Your task to perform on an android device: Show me popular games on the Play Store Image 0: 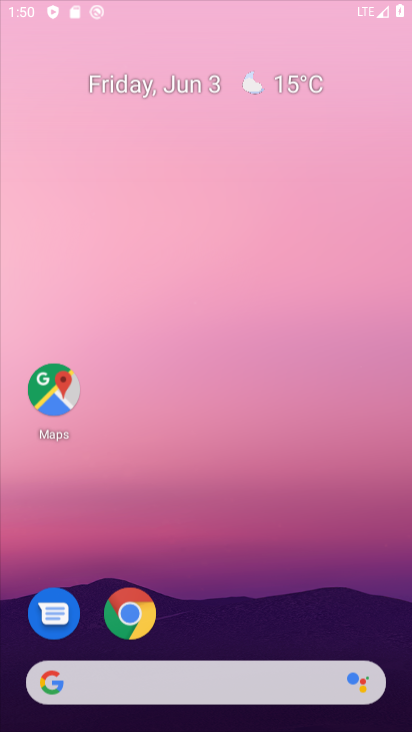
Step 0: click (214, 371)
Your task to perform on an android device: Show me popular games on the Play Store Image 1: 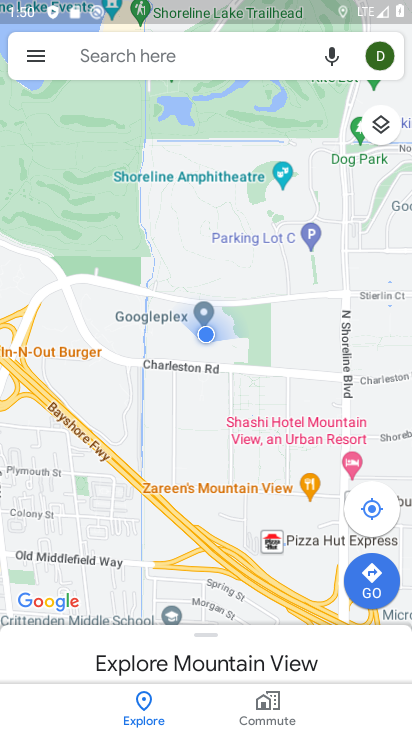
Step 1: press home button
Your task to perform on an android device: Show me popular games on the Play Store Image 2: 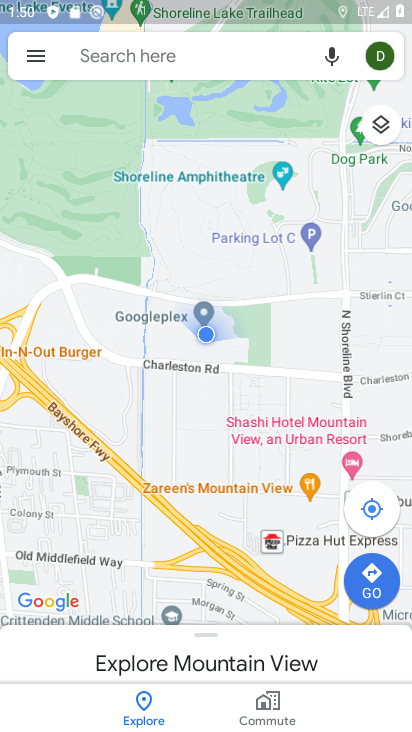
Step 2: drag from (178, 591) to (253, 67)
Your task to perform on an android device: Show me popular games on the Play Store Image 3: 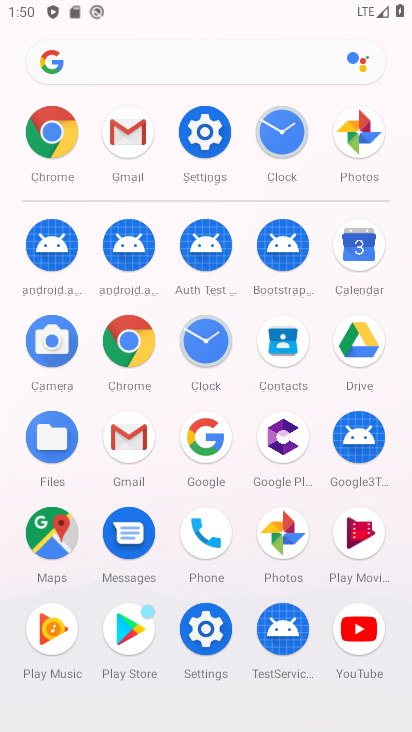
Step 3: click (130, 617)
Your task to perform on an android device: Show me popular games on the Play Store Image 4: 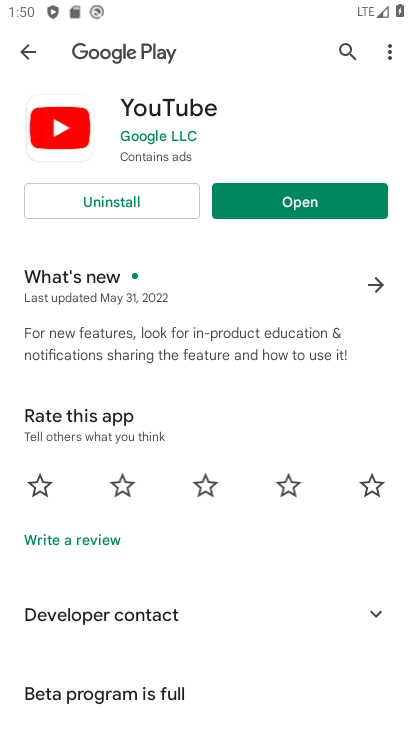
Step 4: press back button
Your task to perform on an android device: Show me popular games on the Play Store Image 5: 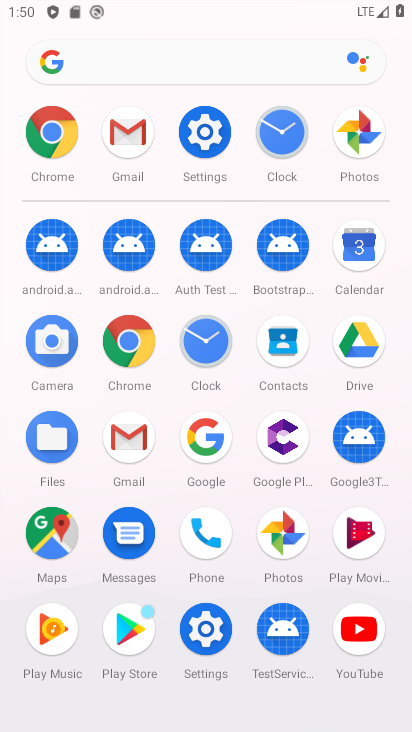
Step 5: click (143, 636)
Your task to perform on an android device: Show me popular games on the Play Store Image 6: 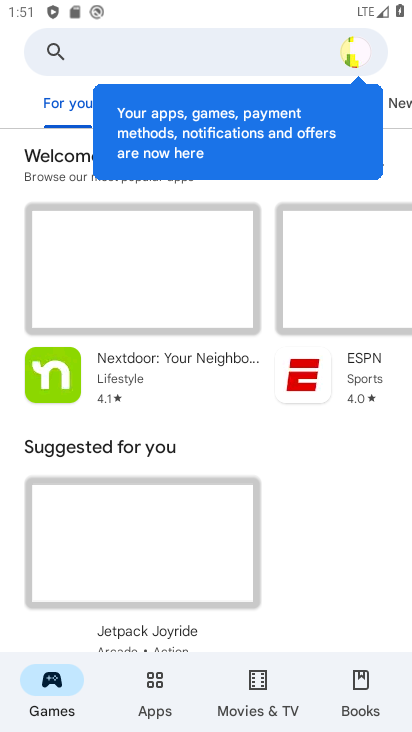
Step 6: click (149, 681)
Your task to perform on an android device: Show me popular games on the Play Store Image 7: 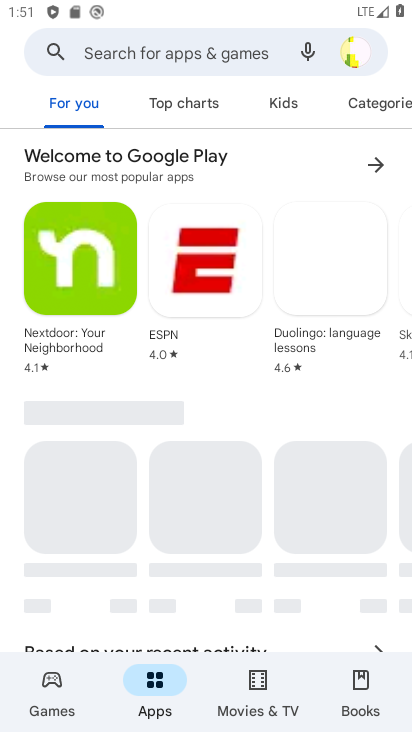
Step 7: drag from (173, 465) to (205, 254)
Your task to perform on an android device: Show me popular games on the Play Store Image 8: 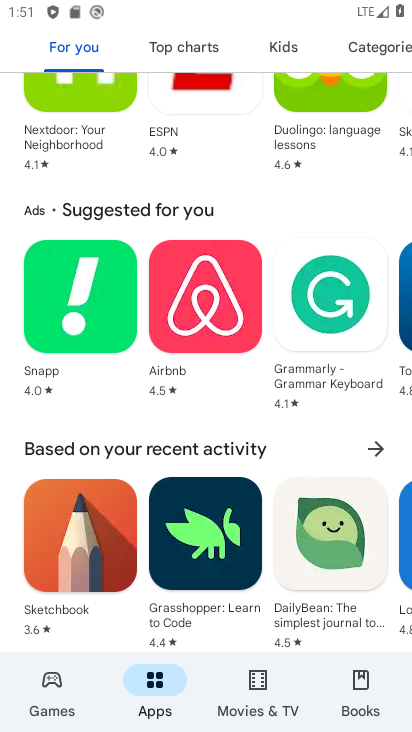
Step 8: drag from (211, 247) to (350, 731)
Your task to perform on an android device: Show me popular games on the Play Store Image 9: 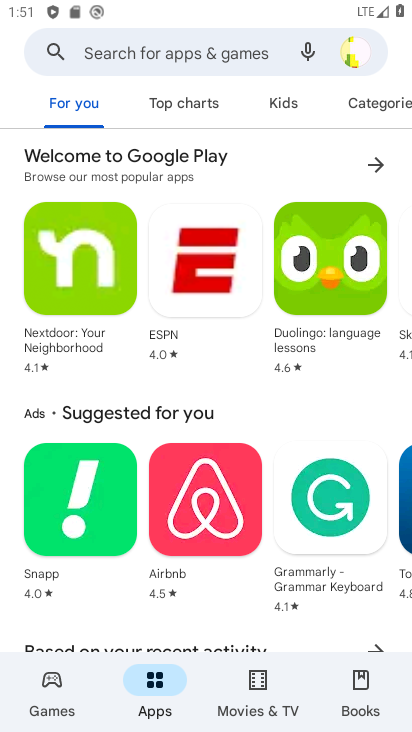
Step 9: drag from (250, 600) to (290, 274)
Your task to perform on an android device: Show me popular games on the Play Store Image 10: 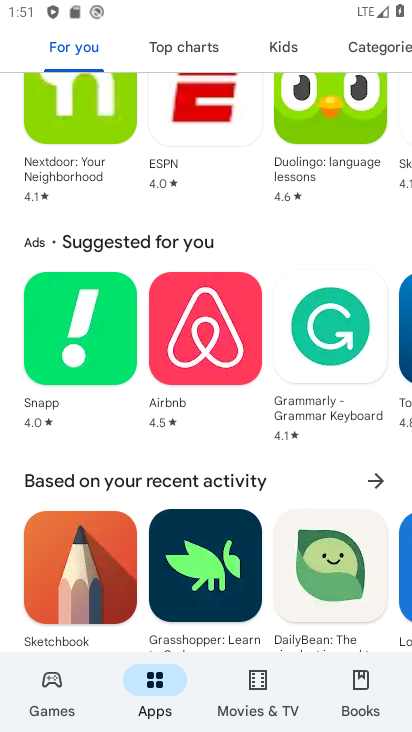
Step 10: drag from (245, 229) to (271, 678)
Your task to perform on an android device: Show me popular games on the Play Store Image 11: 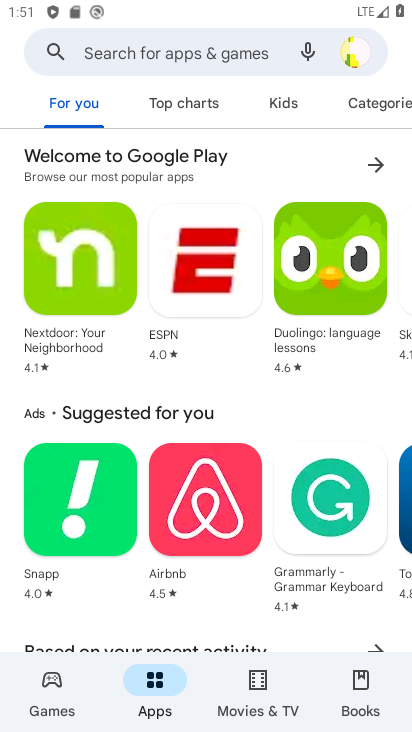
Step 11: drag from (226, 614) to (286, 126)
Your task to perform on an android device: Show me popular games on the Play Store Image 12: 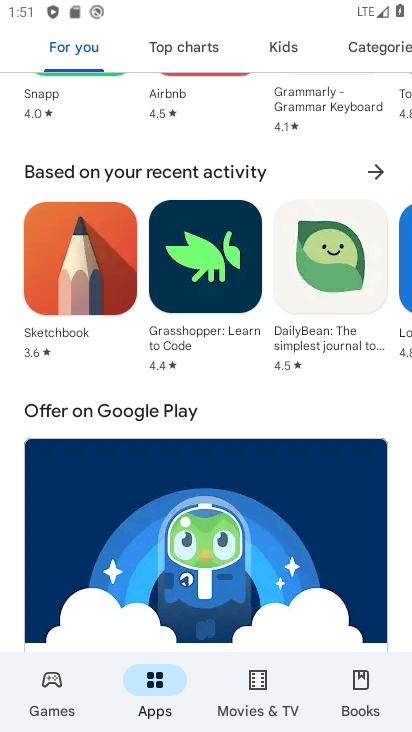
Step 12: drag from (217, 461) to (256, 181)
Your task to perform on an android device: Show me popular games on the Play Store Image 13: 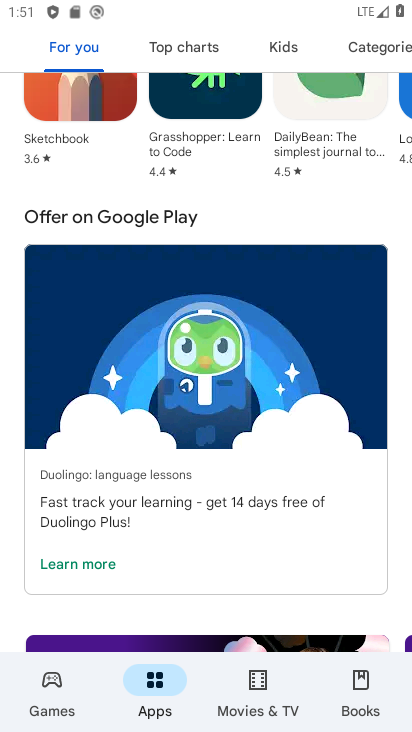
Step 13: drag from (182, 608) to (218, 57)
Your task to perform on an android device: Show me popular games on the Play Store Image 14: 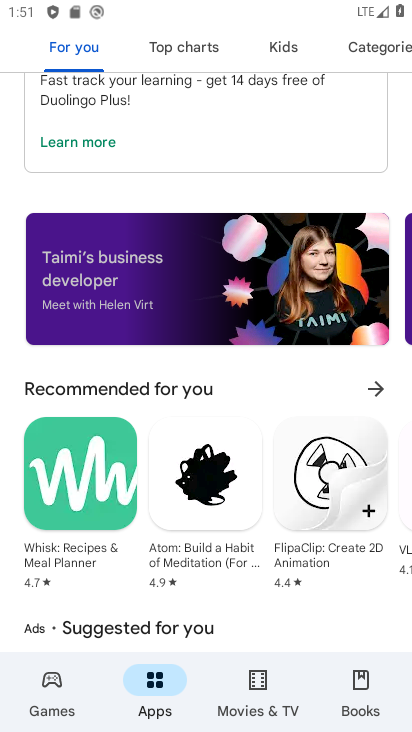
Step 14: drag from (243, 536) to (267, 195)
Your task to perform on an android device: Show me popular games on the Play Store Image 15: 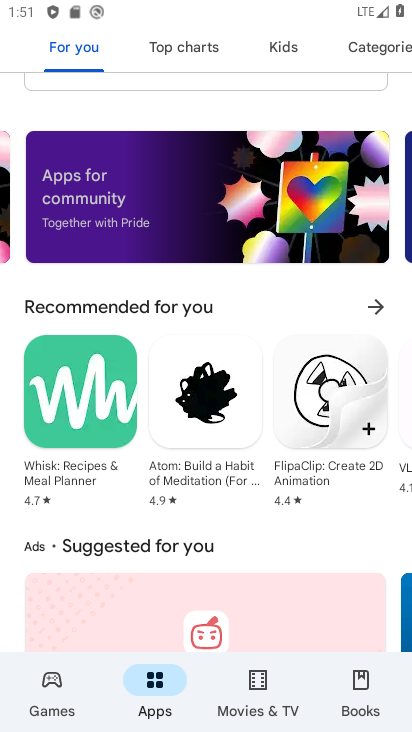
Step 15: drag from (218, 617) to (218, 197)
Your task to perform on an android device: Show me popular games on the Play Store Image 16: 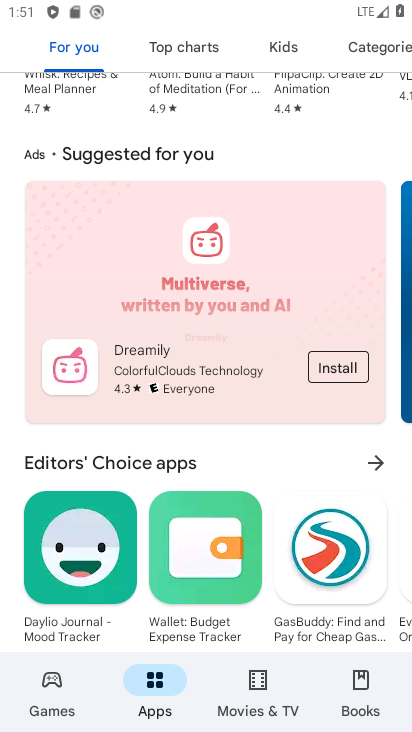
Step 16: drag from (237, 607) to (251, 191)
Your task to perform on an android device: Show me popular games on the Play Store Image 17: 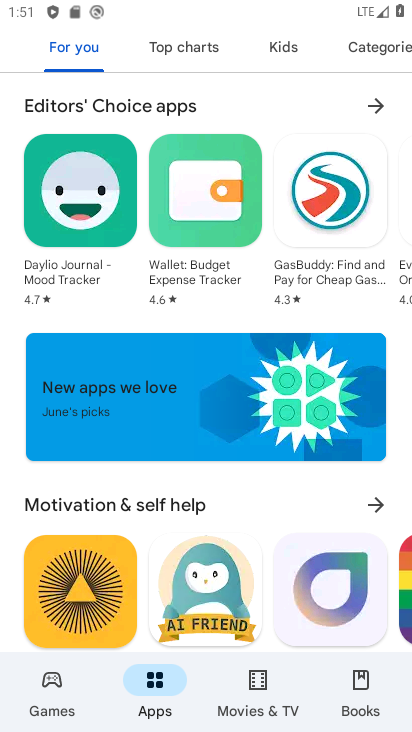
Step 17: drag from (258, 293) to (381, 730)
Your task to perform on an android device: Show me popular games on the Play Store Image 18: 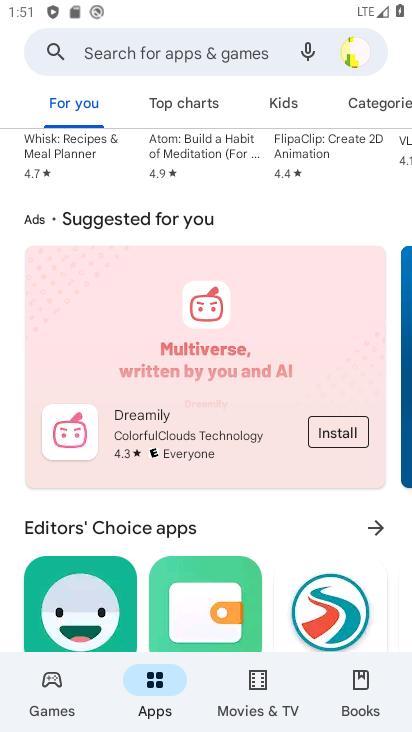
Step 18: drag from (217, 252) to (293, 726)
Your task to perform on an android device: Show me popular games on the Play Store Image 19: 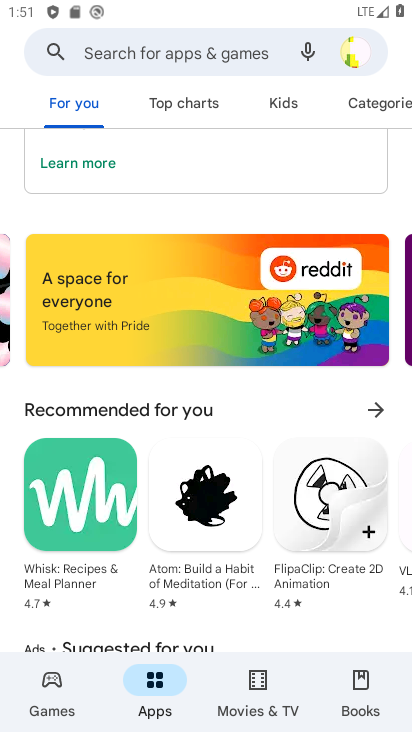
Step 19: drag from (265, 343) to (330, 729)
Your task to perform on an android device: Show me popular games on the Play Store Image 20: 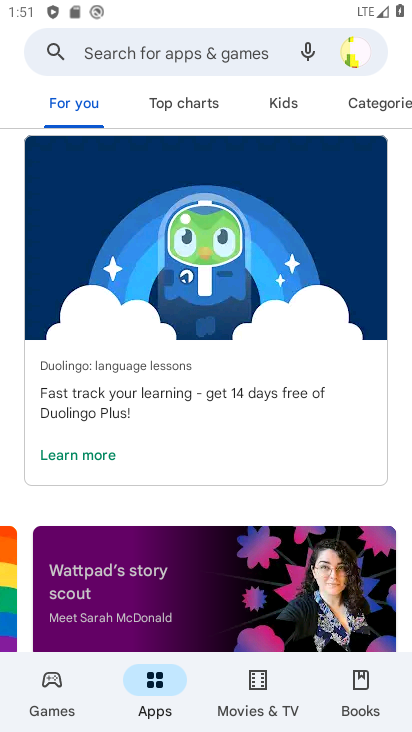
Step 20: drag from (197, 280) to (247, 725)
Your task to perform on an android device: Show me popular games on the Play Store Image 21: 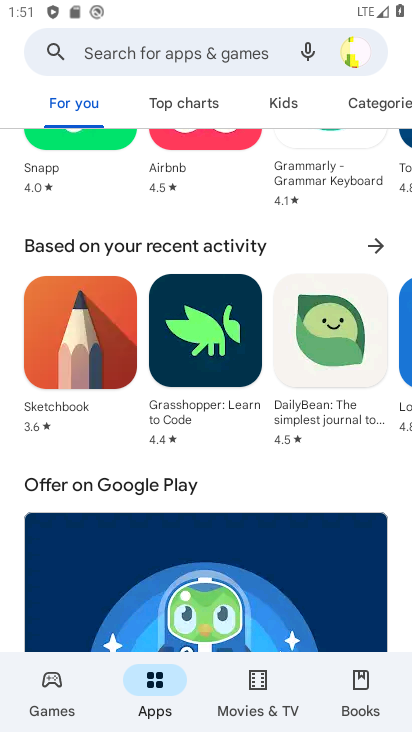
Step 21: drag from (170, 273) to (197, 728)
Your task to perform on an android device: Show me popular games on the Play Store Image 22: 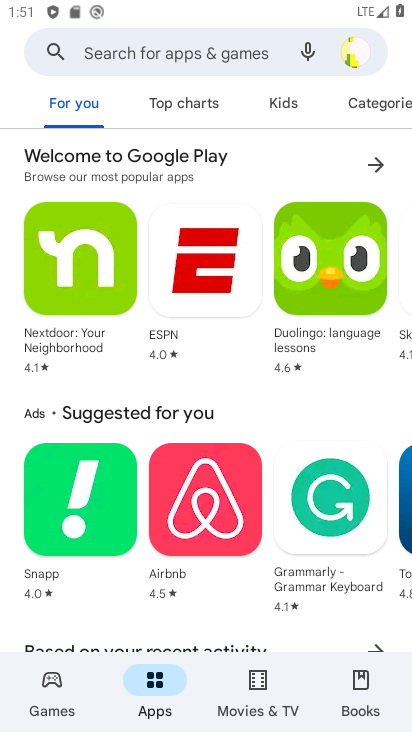
Step 22: drag from (264, 215) to (317, 731)
Your task to perform on an android device: Show me popular games on the Play Store Image 23: 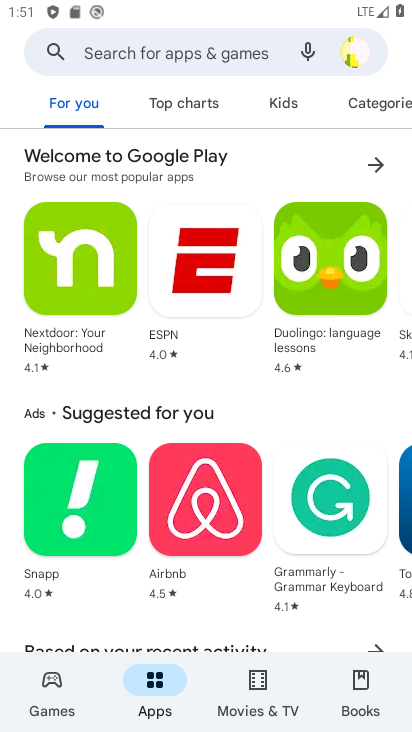
Step 23: click (64, 680)
Your task to perform on an android device: Show me popular games on the Play Store Image 24: 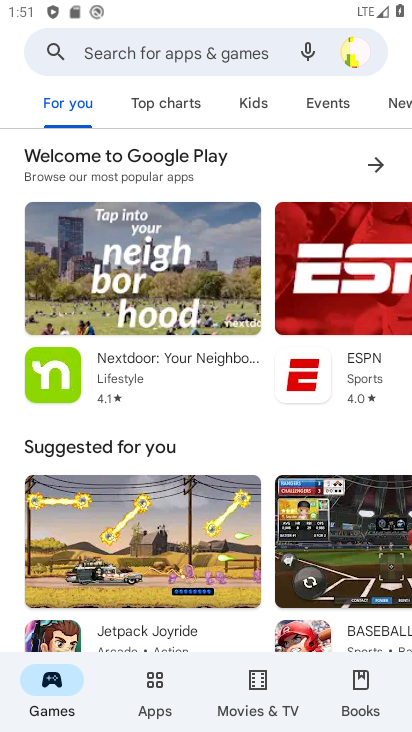
Step 24: drag from (165, 565) to (279, 213)
Your task to perform on an android device: Show me popular games on the Play Store Image 25: 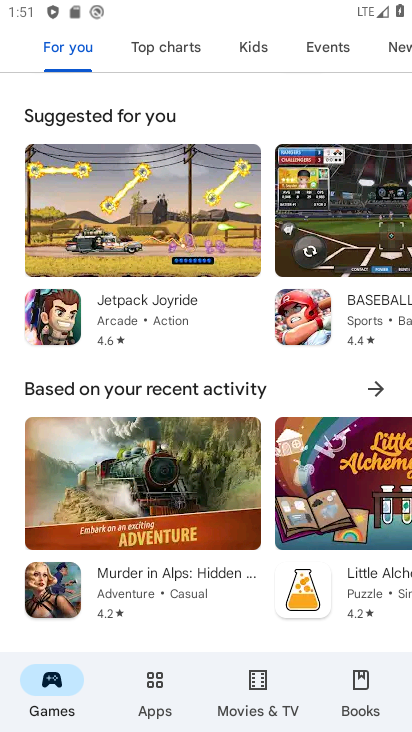
Step 25: drag from (246, 606) to (309, 270)
Your task to perform on an android device: Show me popular games on the Play Store Image 26: 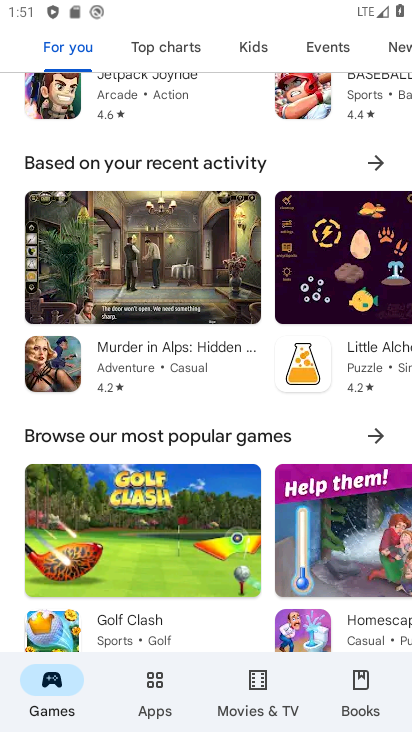
Step 26: click (376, 431)
Your task to perform on an android device: Show me popular games on the Play Store Image 27: 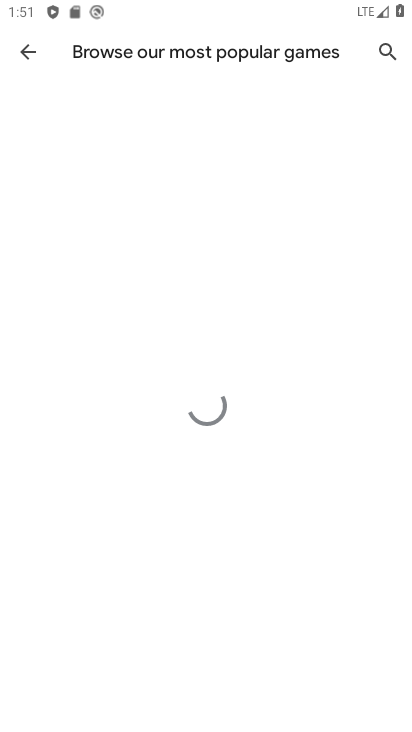
Step 27: task complete